Your task to perform on an android device: Check the news Image 0: 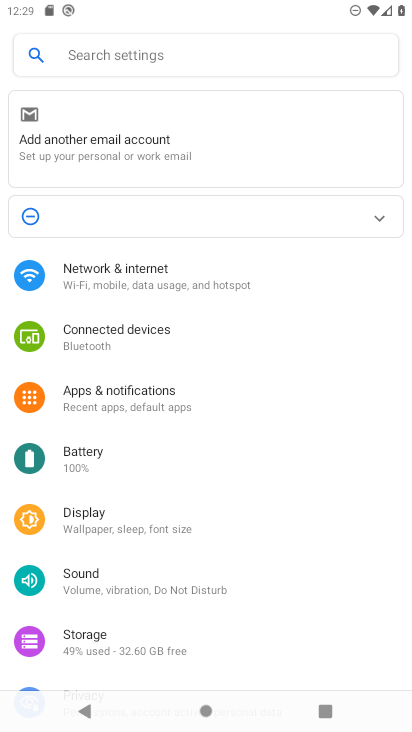
Step 0: press home button
Your task to perform on an android device: Check the news Image 1: 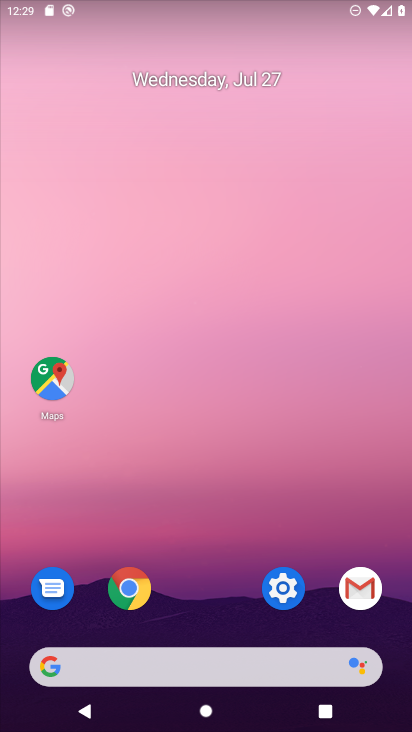
Step 1: click (154, 671)
Your task to perform on an android device: Check the news Image 2: 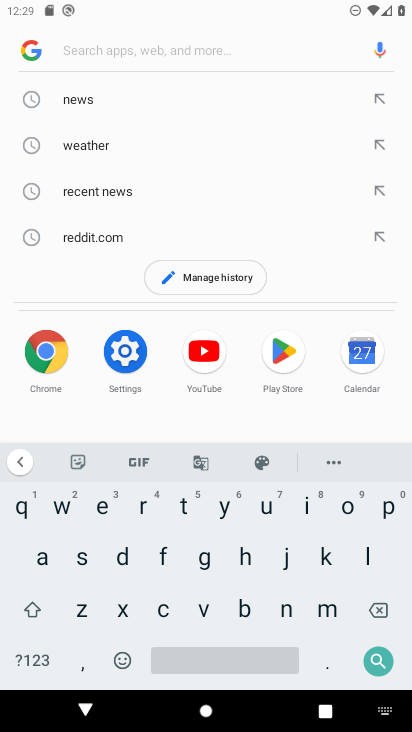
Step 2: click (98, 106)
Your task to perform on an android device: Check the news Image 3: 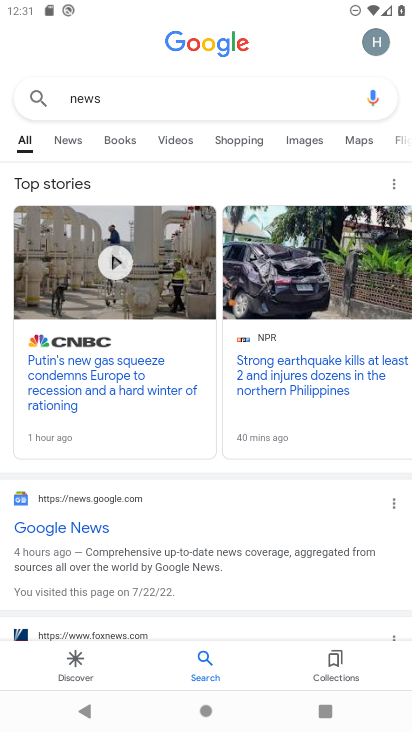
Step 3: task complete